Your task to perform on an android device: change notification settings in the gmail app Image 0: 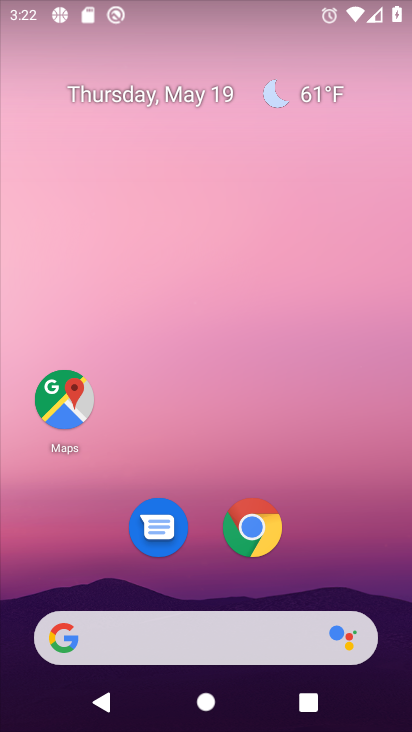
Step 0: drag from (220, 534) to (276, 78)
Your task to perform on an android device: change notification settings in the gmail app Image 1: 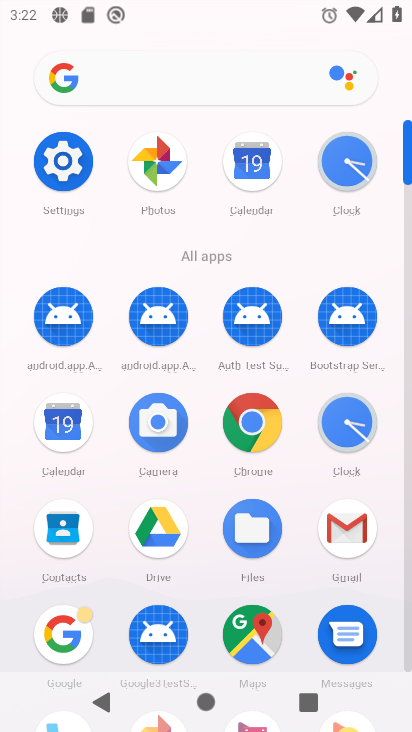
Step 1: click (332, 517)
Your task to perform on an android device: change notification settings in the gmail app Image 2: 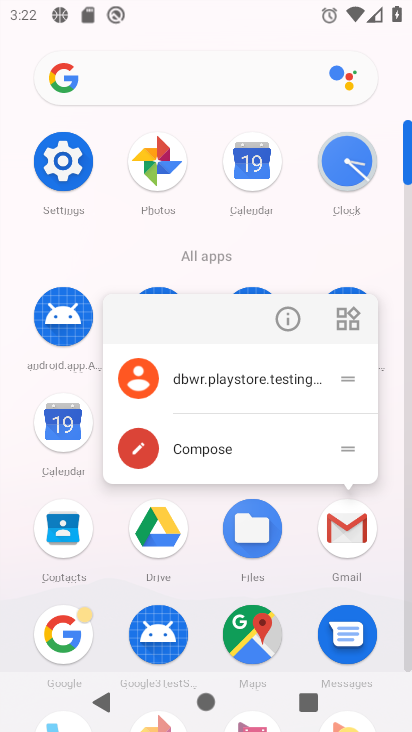
Step 2: click (289, 319)
Your task to perform on an android device: change notification settings in the gmail app Image 3: 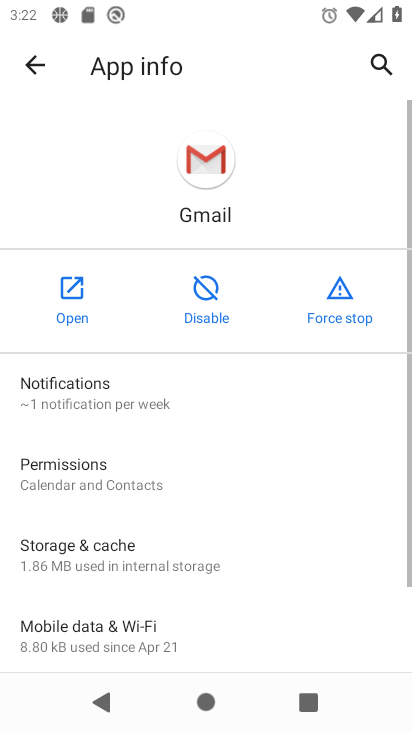
Step 3: click (111, 405)
Your task to perform on an android device: change notification settings in the gmail app Image 4: 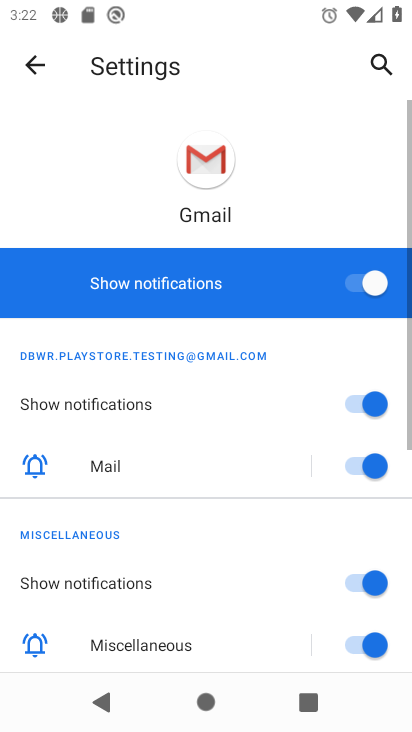
Step 4: drag from (162, 618) to (234, 188)
Your task to perform on an android device: change notification settings in the gmail app Image 5: 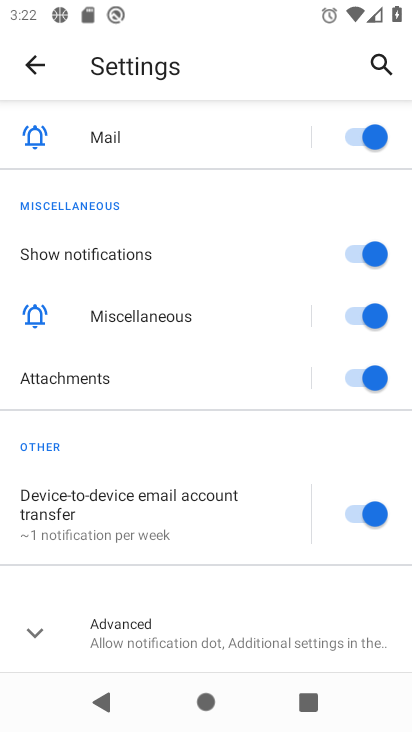
Step 5: click (374, 136)
Your task to perform on an android device: change notification settings in the gmail app Image 6: 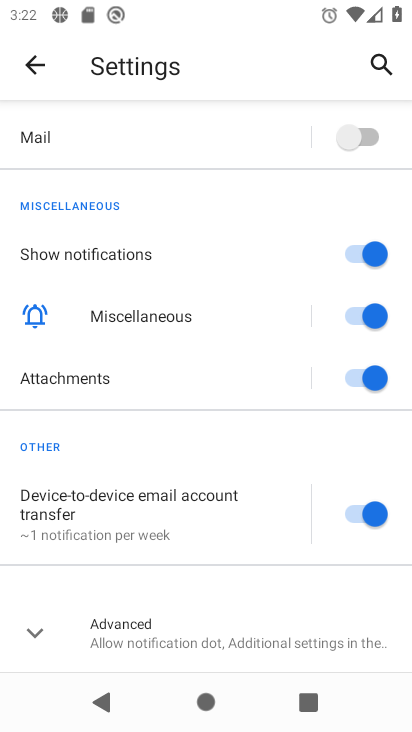
Step 6: task complete